Your task to perform on an android device: check android version Image 0: 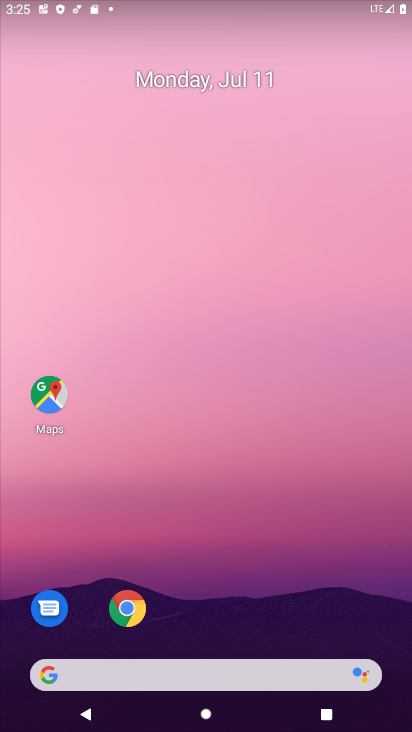
Step 0: drag from (192, 5) to (85, 622)
Your task to perform on an android device: check android version Image 1: 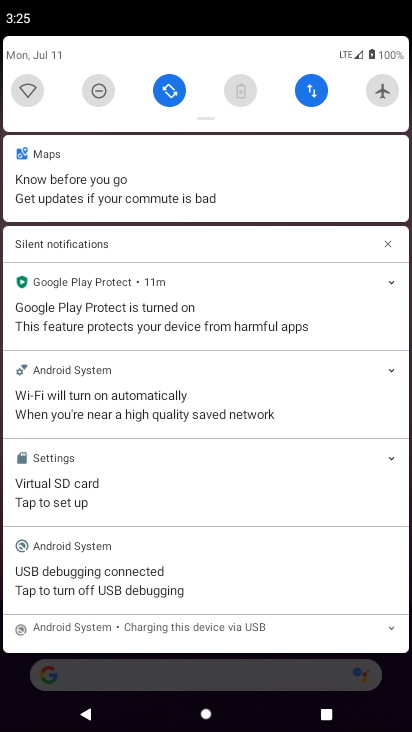
Step 1: drag from (198, 42) to (182, 484)
Your task to perform on an android device: check android version Image 2: 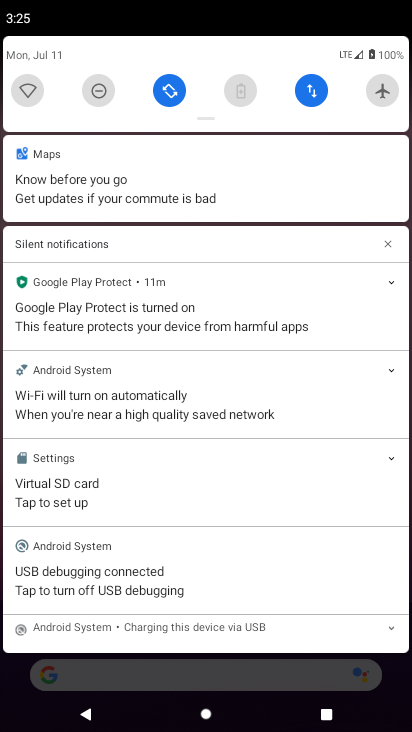
Step 2: drag from (261, 160) to (244, 403)
Your task to perform on an android device: check android version Image 3: 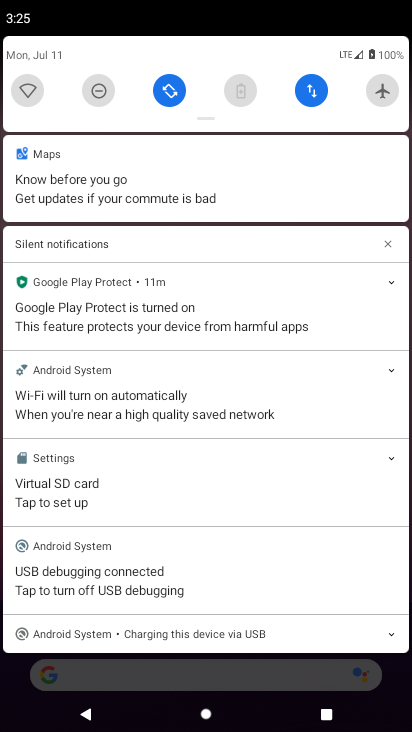
Step 3: drag from (187, 58) to (214, 529)
Your task to perform on an android device: check android version Image 4: 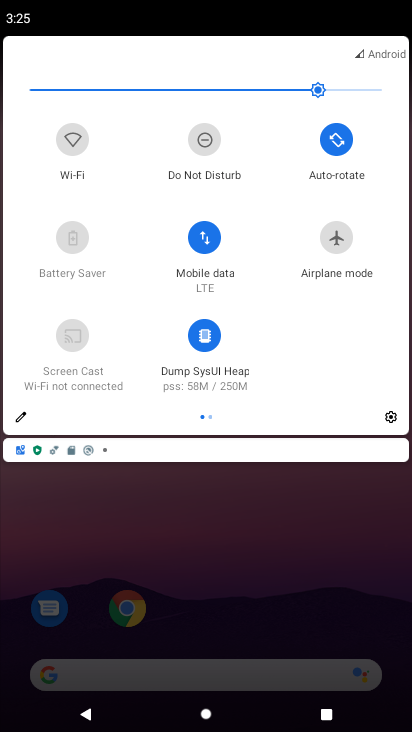
Step 4: click (385, 429)
Your task to perform on an android device: check android version Image 5: 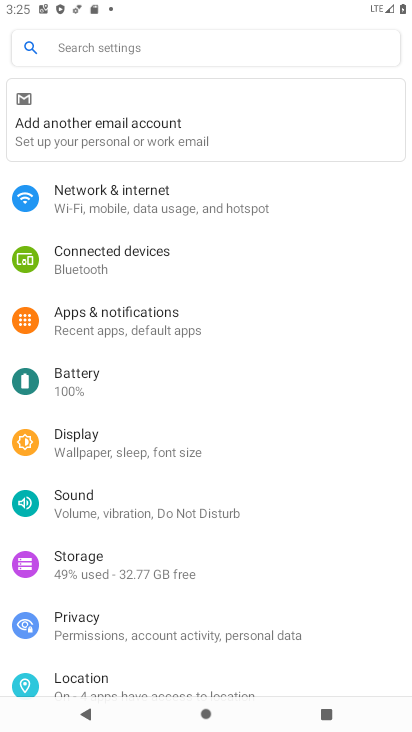
Step 5: drag from (168, 674) to (249, 124)
Your task to perform on an android device: check android version Image 6: 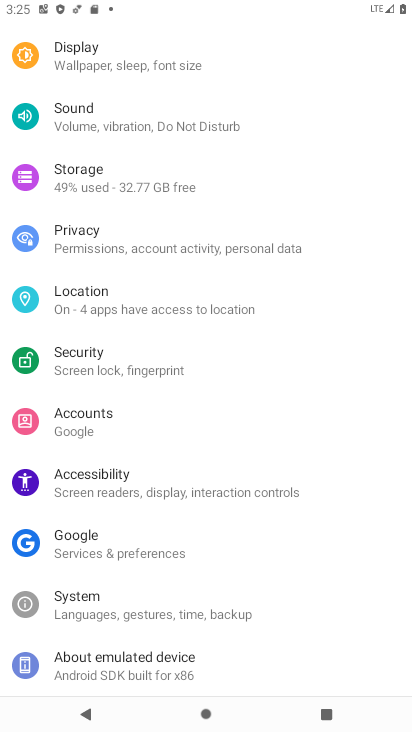
Step 6: drag from (186, 594) to (110, 66)
Your task to perform on an android device: check android version Image 7: 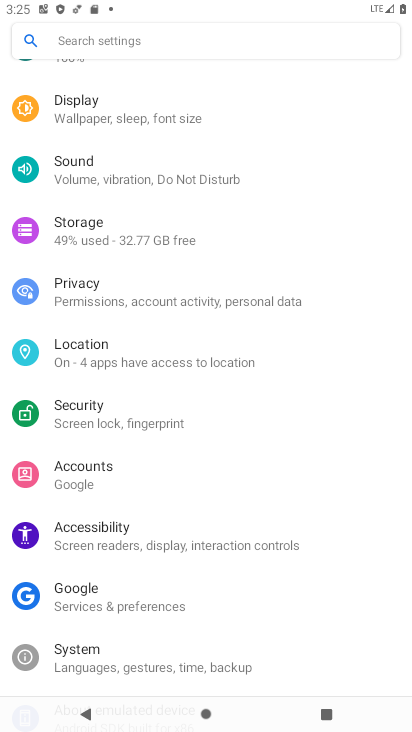
Step 7: click (162, 682)
Your task to perform on an android device: check android version Image 8: 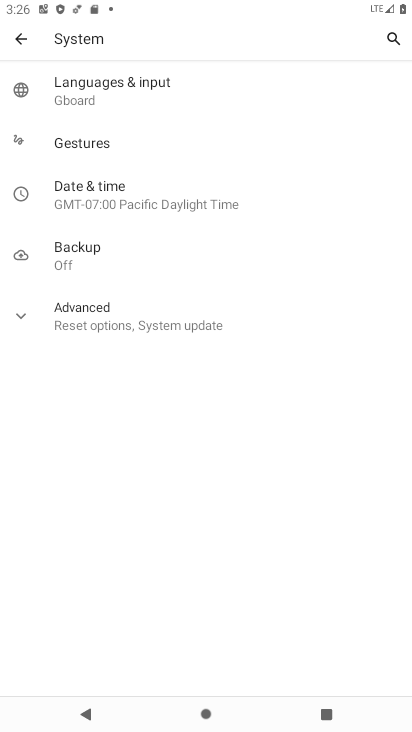
Step 8: click (28, 36)
Your task to perform on an android device: check android version Image 9: 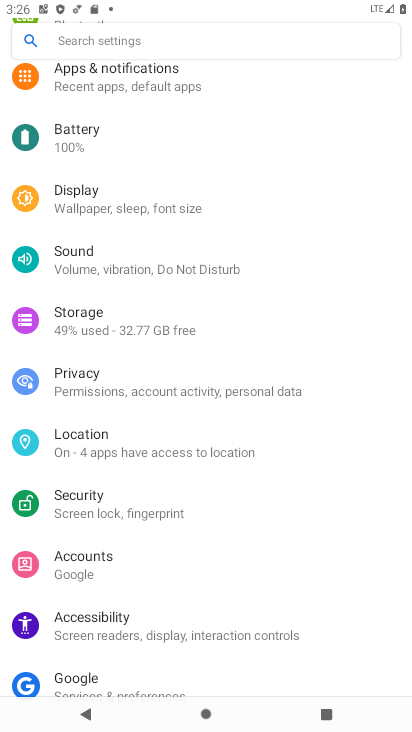
Step 9: drag from (85, 670) to (44, 281)
Your task to perform on an android device: check android version Image 10: 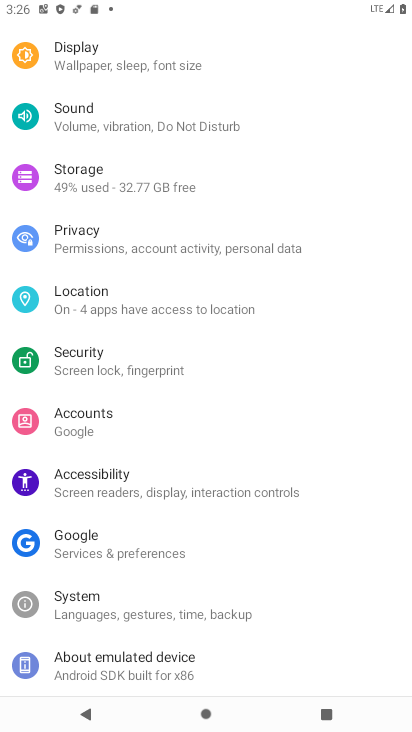
Step 10: click (121, 679)
Your task to perform on an android device: check android version Image 11: 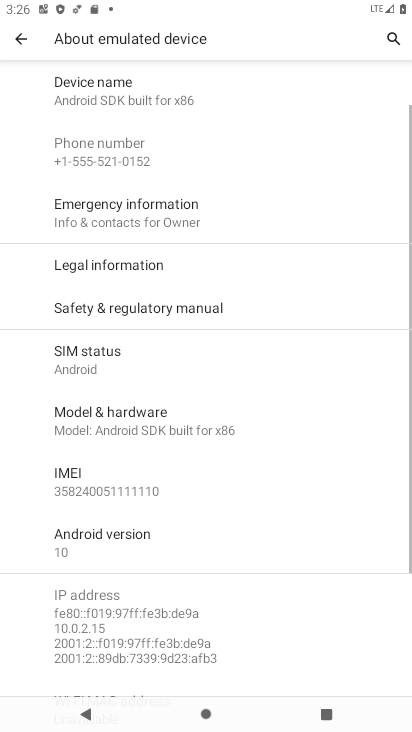
Step 11: click (98, 532)
Your task to perform on an android device: check android version Image 12: 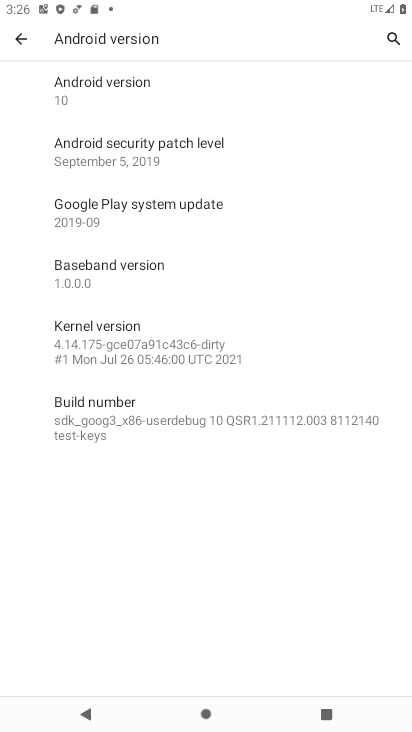
Step 12: task complete